Your task to perform on an android device: uninstall "PUBG MOBILE" Image 0: 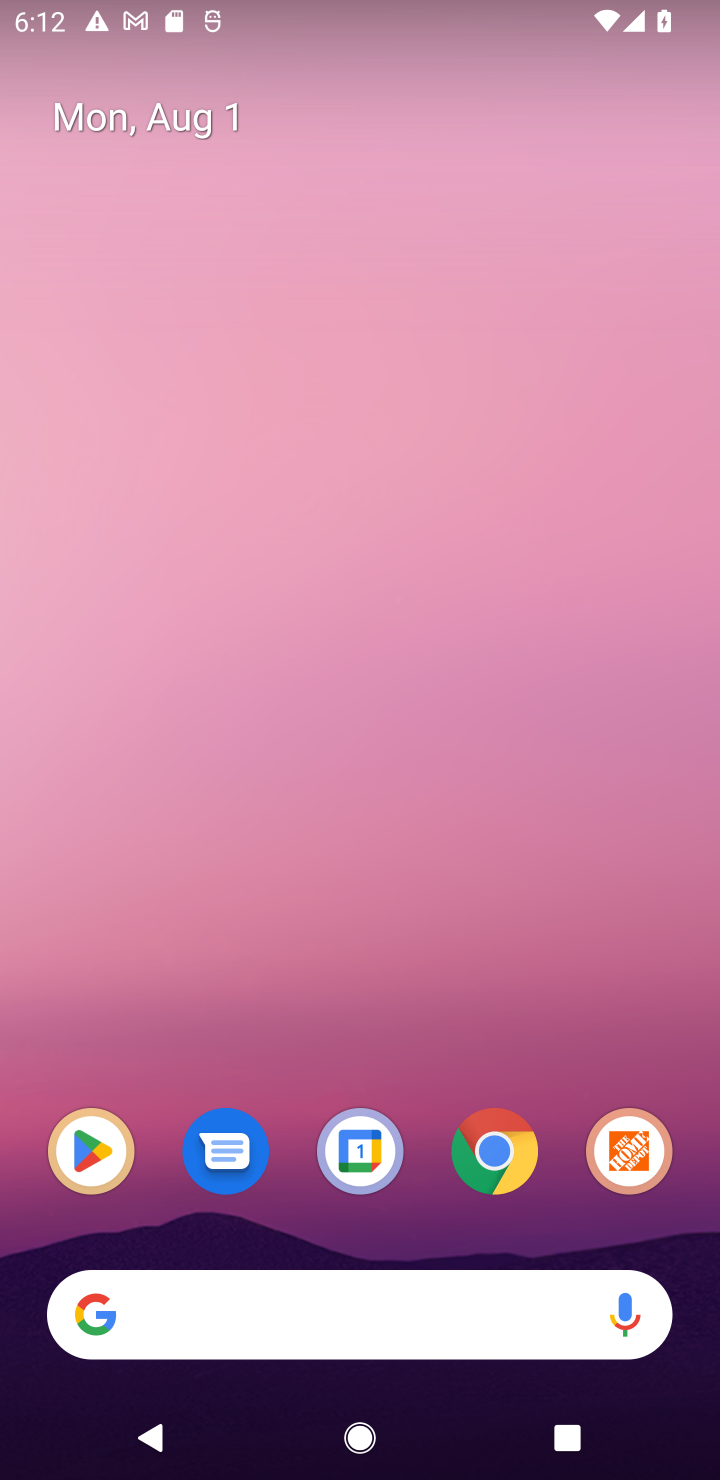
Step 0: drag from (433, 1267) to (419, 194)
Your task to perform on an android device: uninstall "PUBG MOBILE" Image 1: 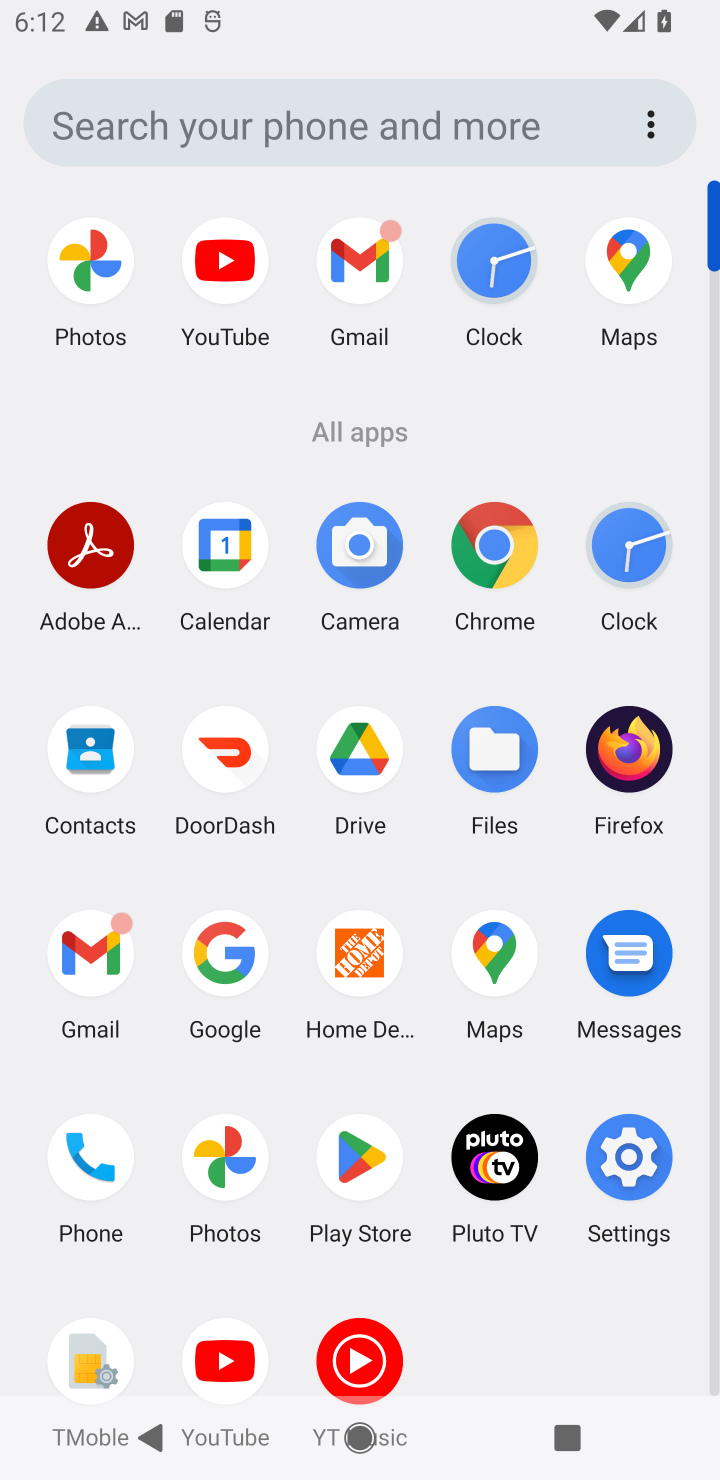
Step 1: click (352, 1166)
Your task to perform on an android device: uninstall "PUBG MOBILE" Image 2: 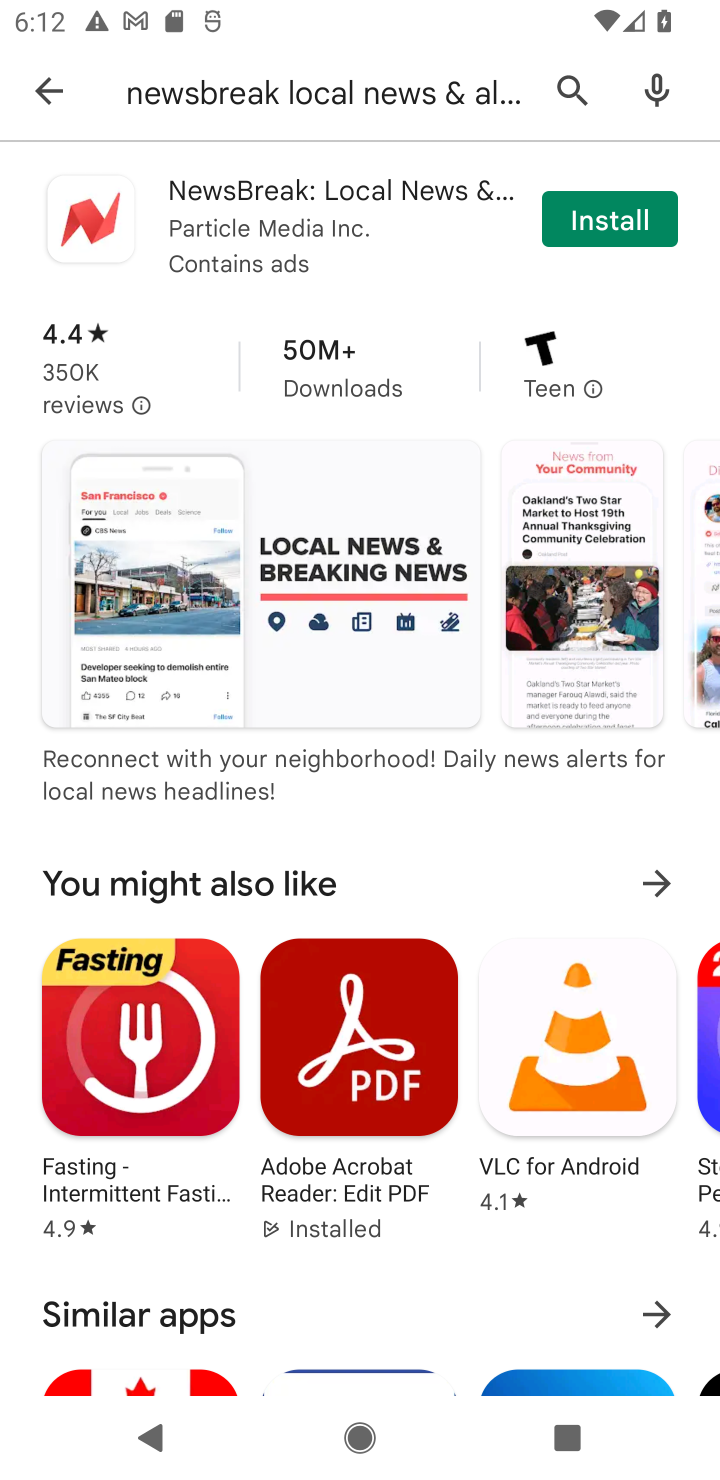
Step 2: click (572, 102)
Your task to perform on an android device: uninstall "PUBG MOBILE" Image 3: 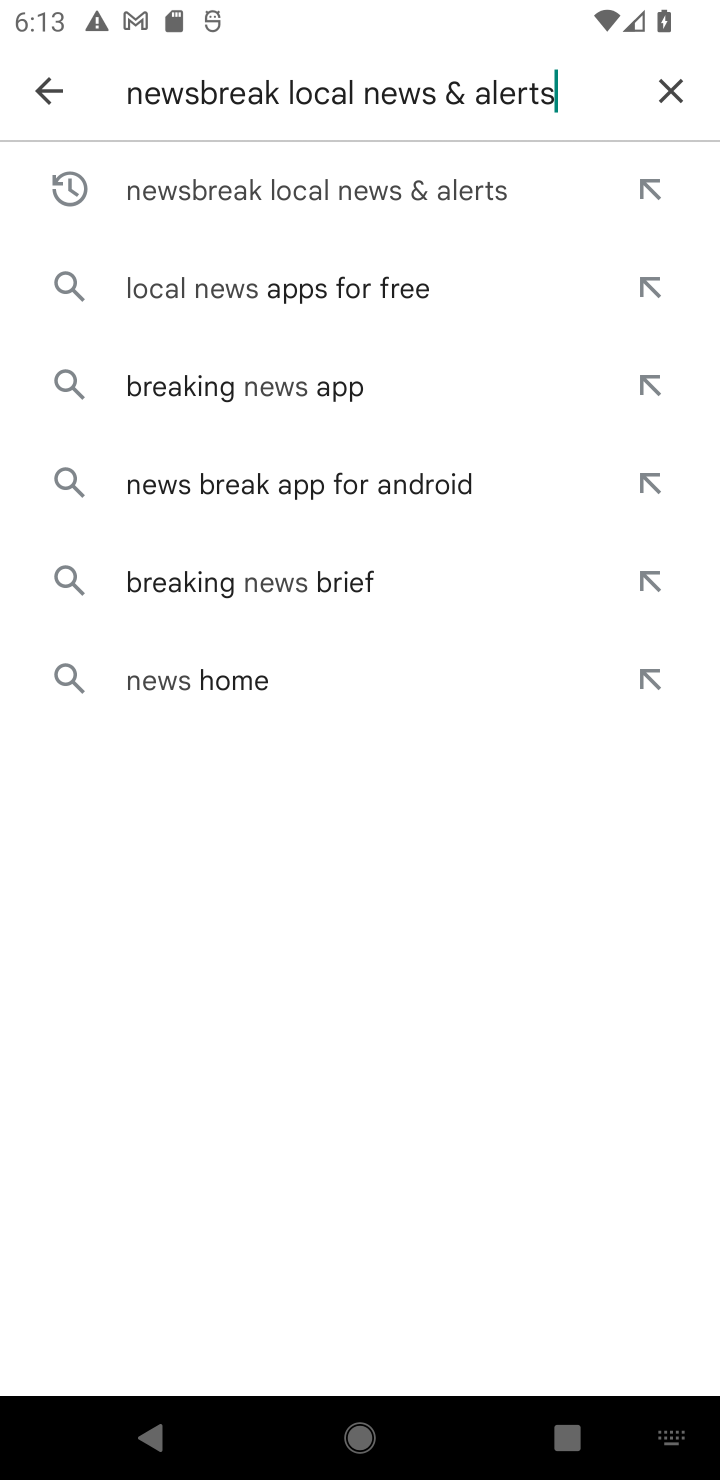
Step 3: click (676, 93)
Your task to perform on an android device: uninstall "PUBG MOBILE" Image 4: 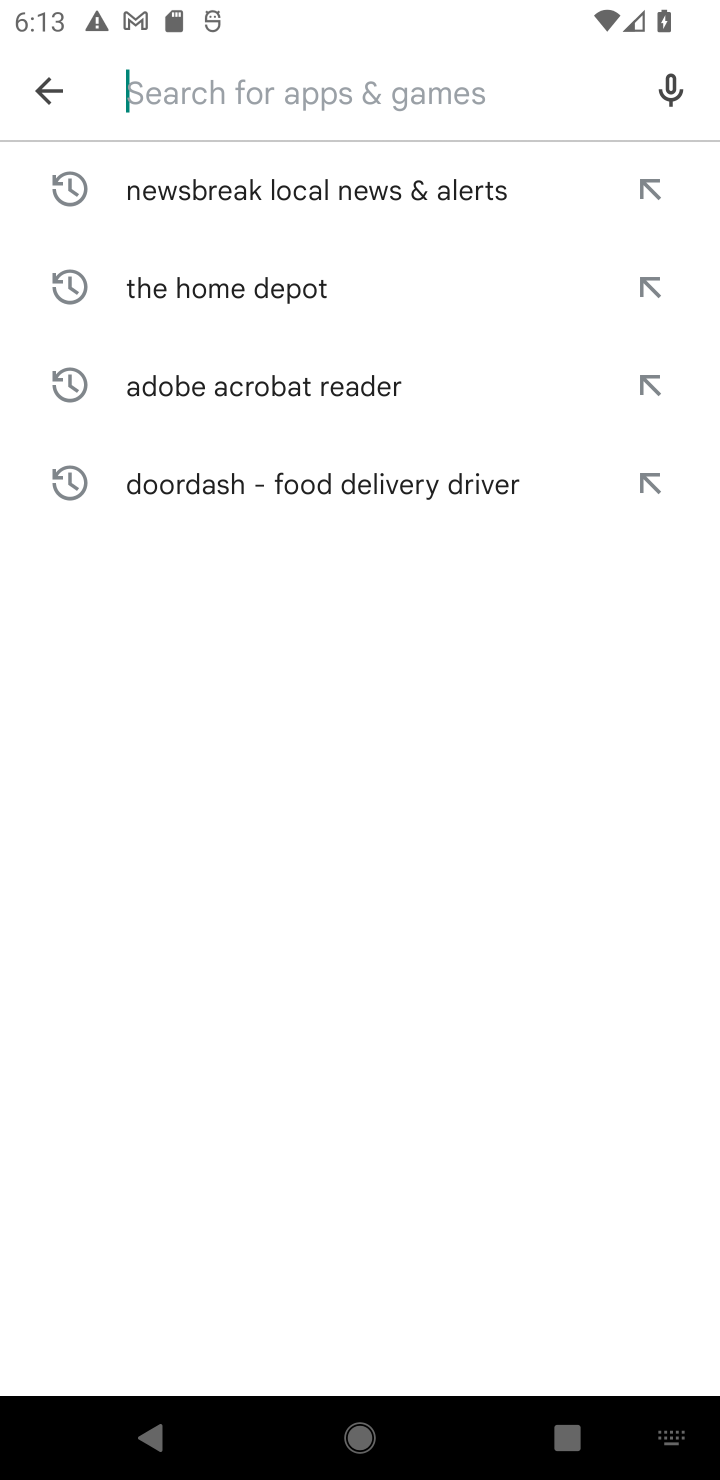
Step 4: click (564, 104)
Your task to perform on an android device: uninstall "PUBG MOBILE" Image 5: 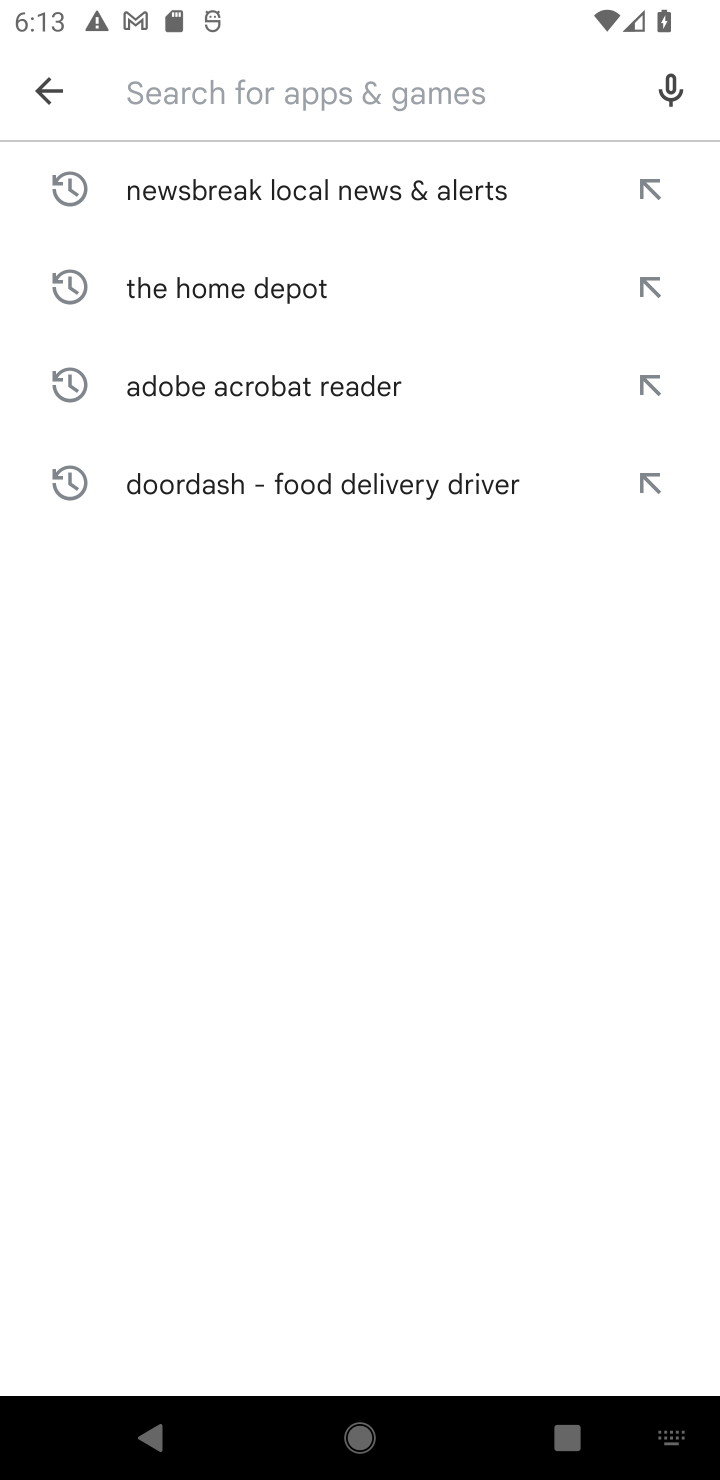
Step 5: type "pubg mobile"
Your task to perform on an android device: uninstall "PUBG MOBILE" Image 6: 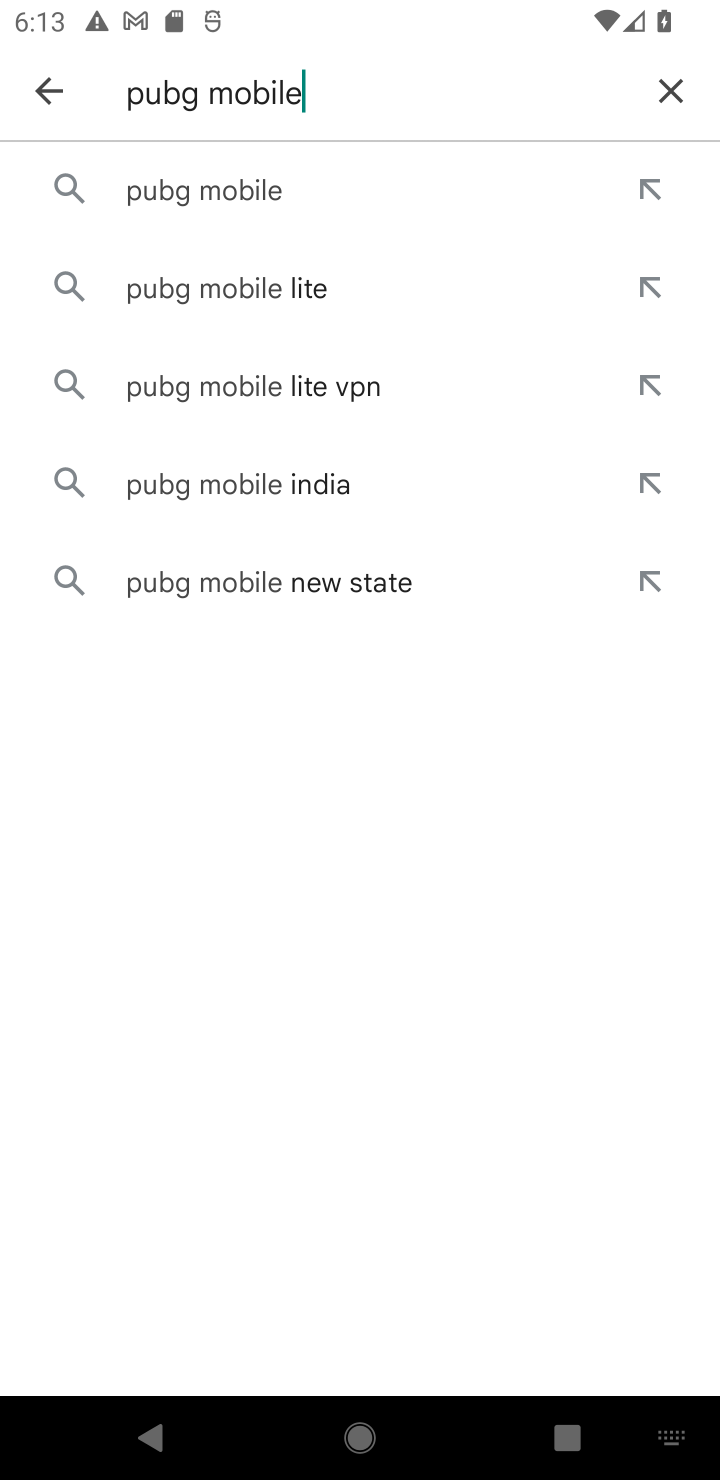
Step 6: click (194, 177)
Your task to perform on an android device: uninstall "PUBG MOBILE" Image 7: 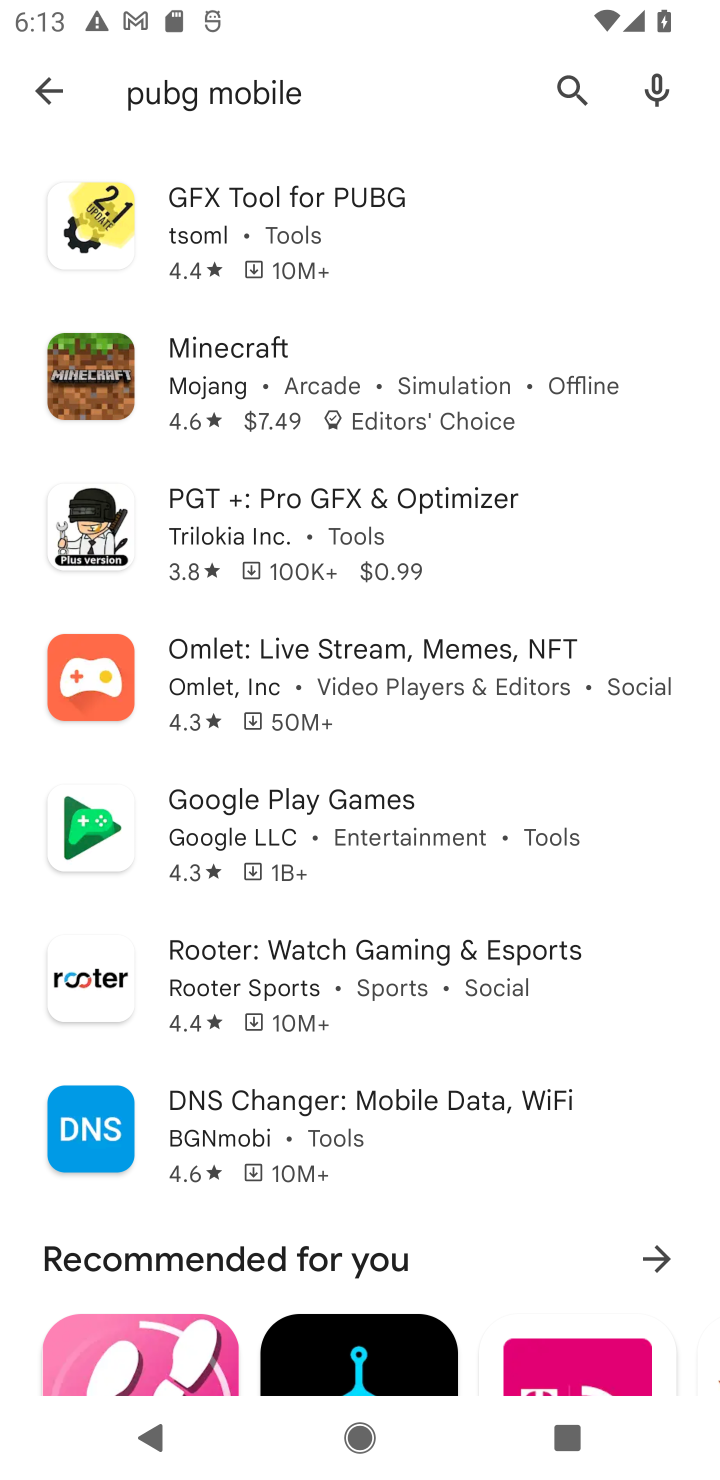
Step 7: task complete